Your task to perform on an android device: allow notifications from all sites in the chrome app Image 0: 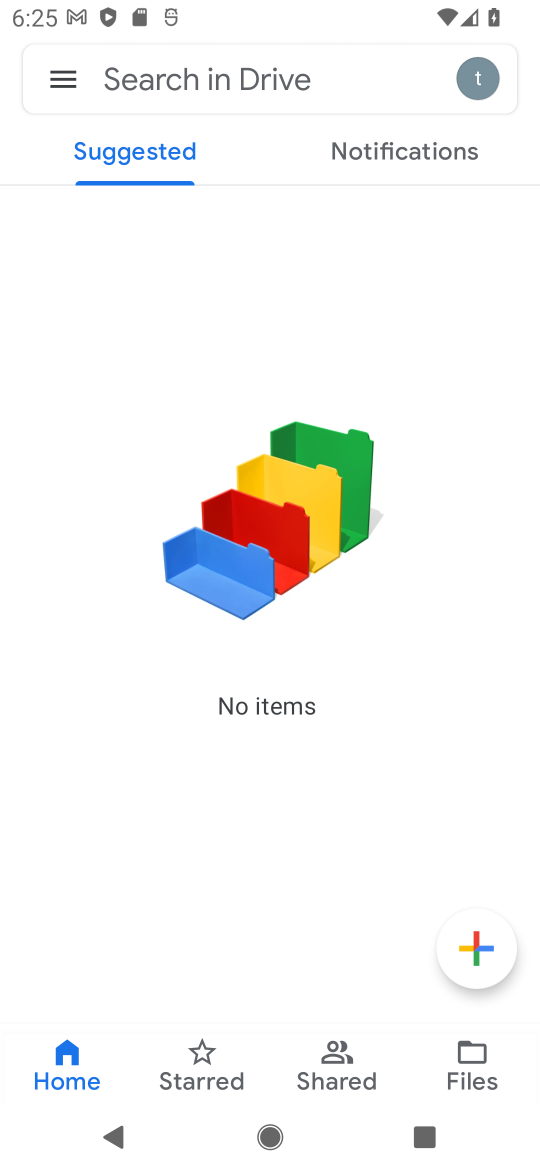
Step 0: press home button
Your task to perform on an android device: allow notifications from all sites in the chrome app Image 1: 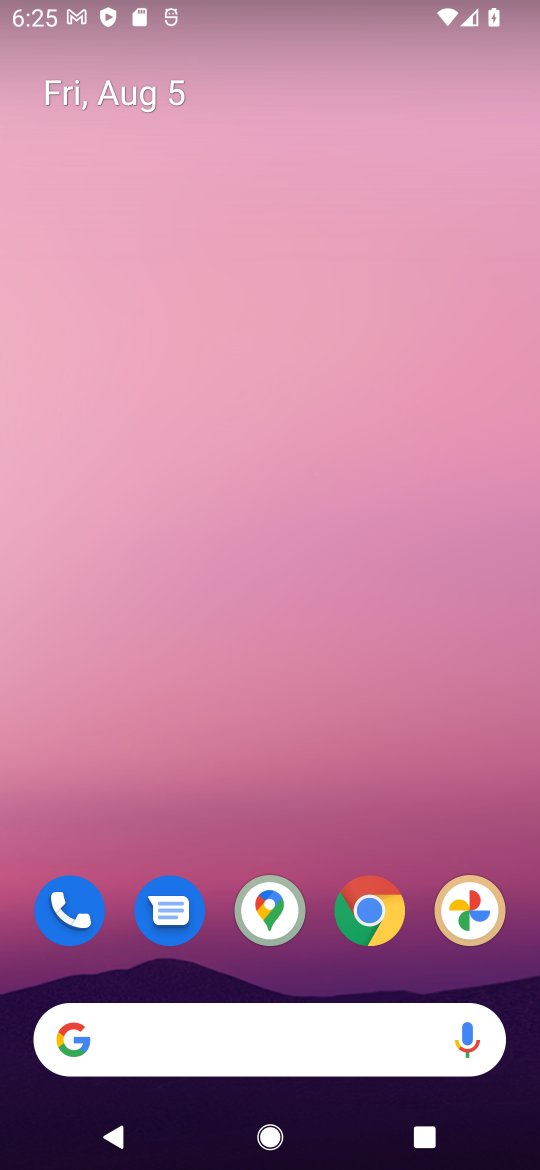
Step 1: drag from (287, 1066) to (353, 48)
Your task to perform on an android device: allow notifications from all sites in the chrome app Image 2: 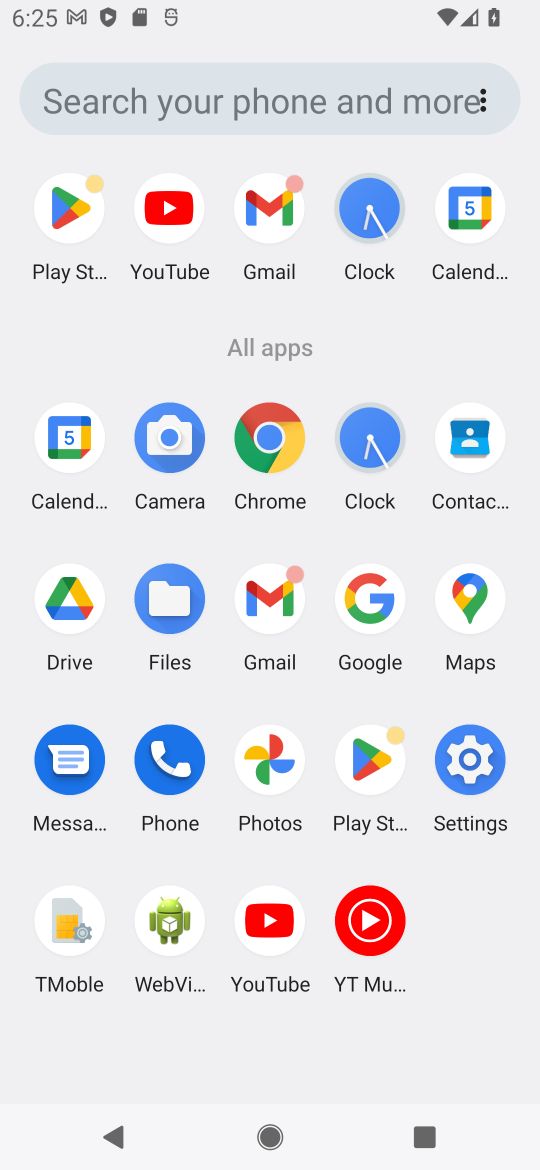
Step 2: click (267, 420)
Your task to perform on an android device: allow notifications from all sites in the chrome app Image 3: 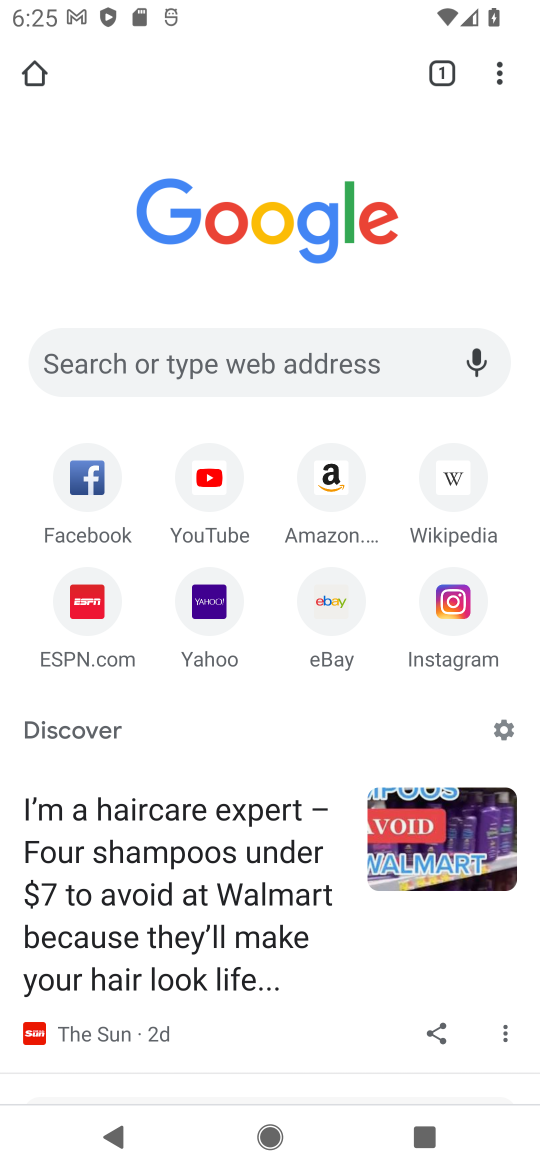
Step 3: click (488, 64)
Your task to perform on an android device: allow notifications from all sites in the chrome app Image 4: 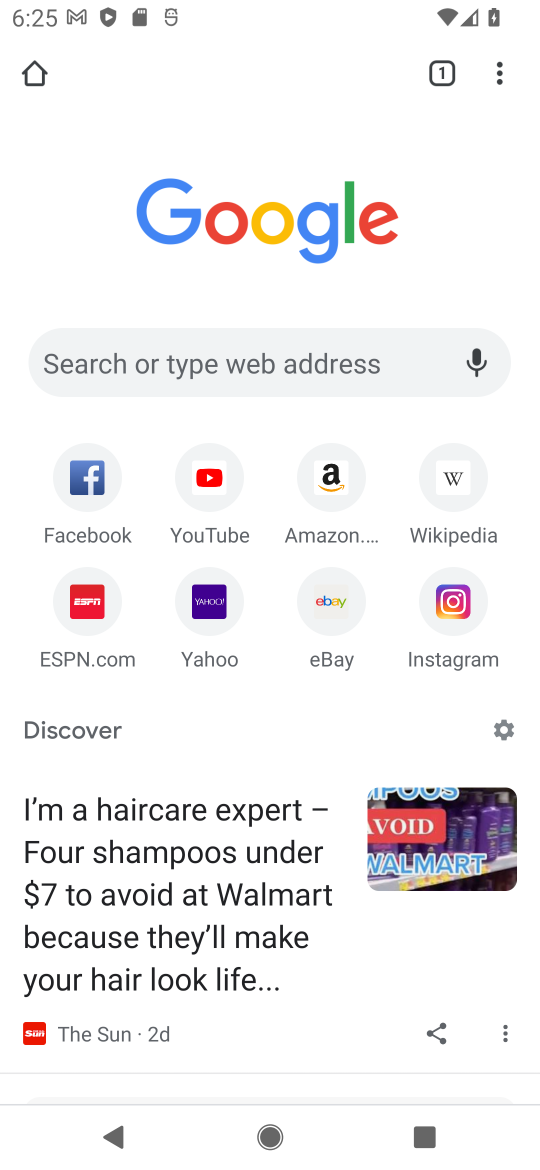
Step 4: drag from (488, 64) to (339, 675)
Your task to perform on an android device: allow notifications from all sites in the chrome app Image 5: 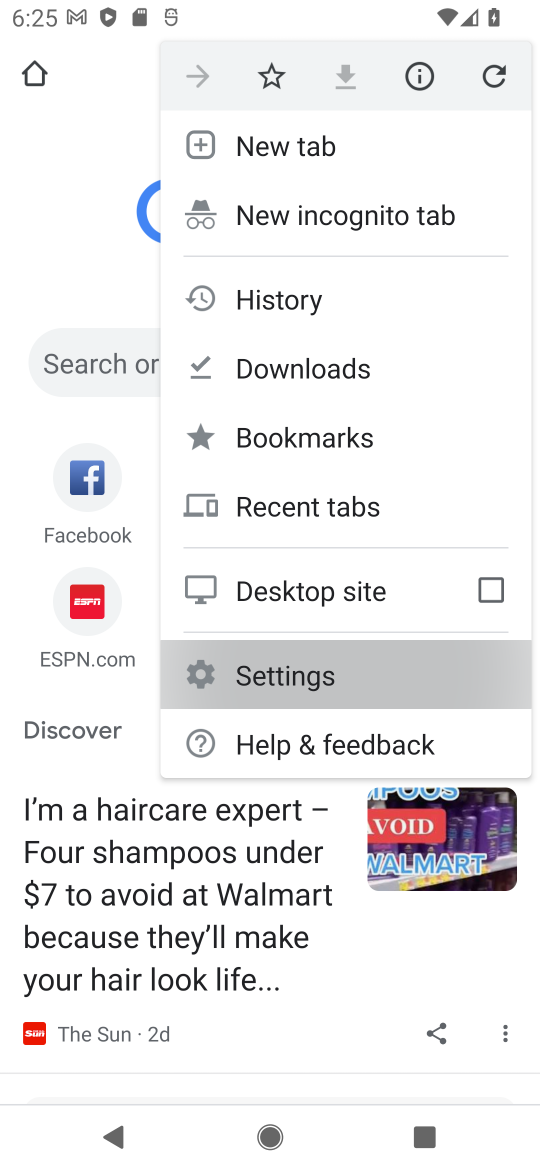
Step 5: click (339, 675)
Your task to perform on an android device: allow notifications from all sites in the chrome app Image 6: 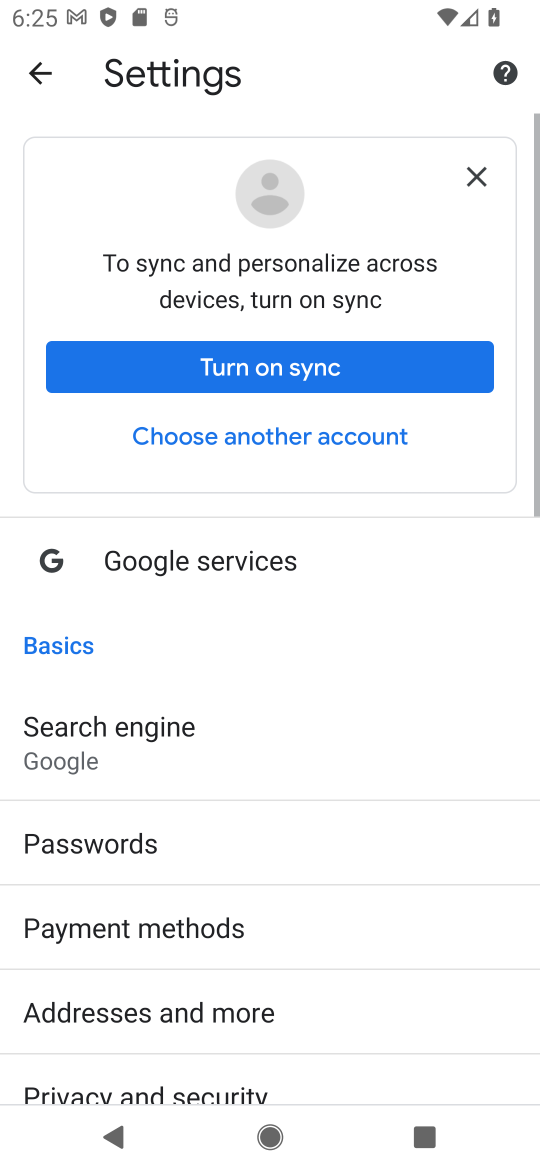
Step 6: drag from (337, 806) to (427, 150)
Your task to perform on an android device: allow notifications from all sites in the chrome app Image 7: 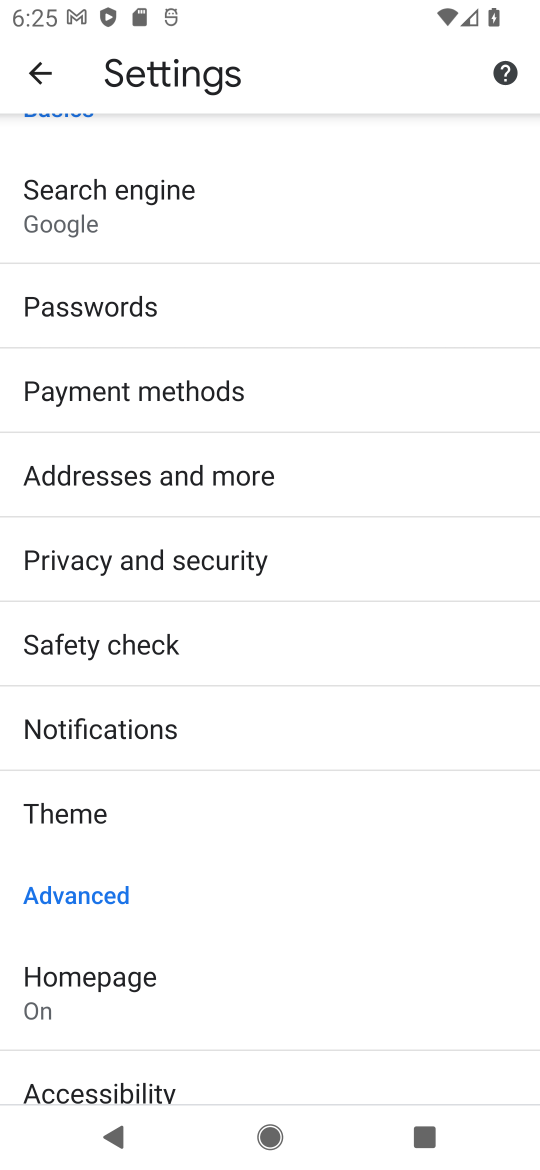
Step 7: drag from (258, 966) to (351, 200)
Your task to perform on an android device: allow notifications from all sites in the chrome app Image 8: 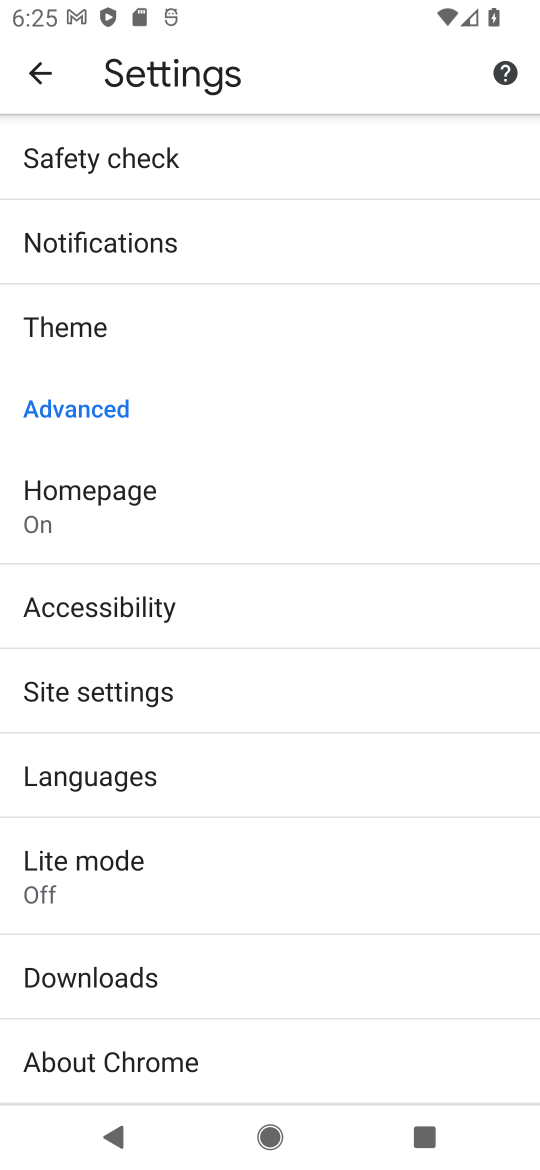
Step 8: click (140, 696)
Your task to perform on an android device: allow notifications from all sites in the chrome app Image 9: 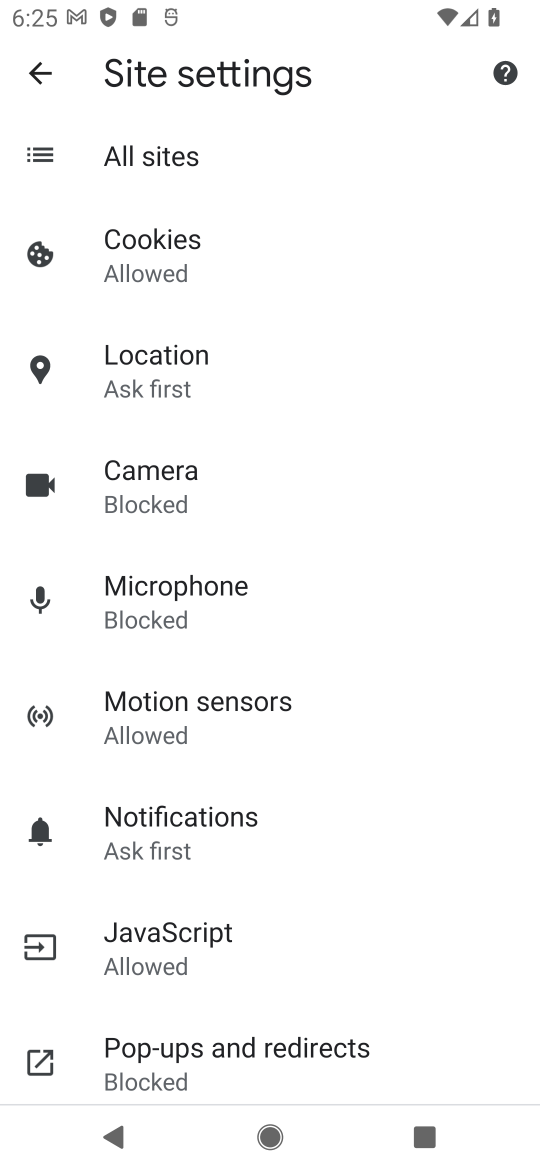
Step 9: click (197, 833)
Your task to perform on an android device: allow notifications from all sites in the chrome app Image 10: 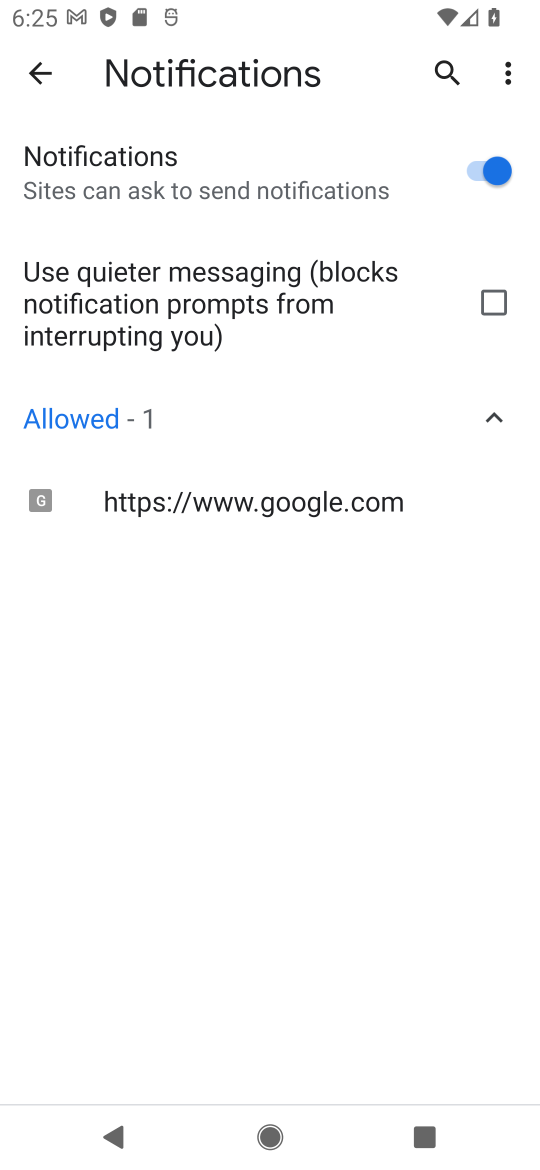
Step 10: task complete